Your task to perform on an android device: Go to calendar. Show me events next week Image 0: 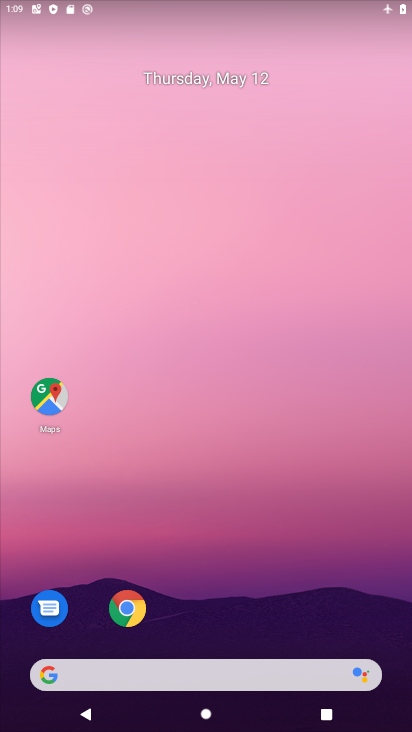
Step 0: drag from (278, 568) to (267, 15)
Your task to perform on an android device: Go to calendar. Show me events next week Image 1: 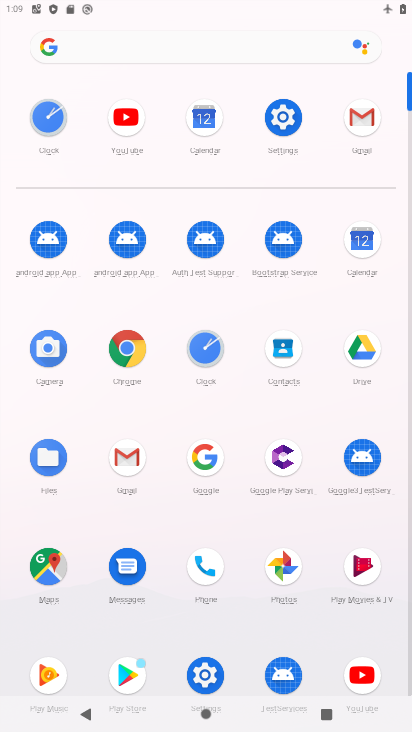
Step 1: click (208, 122)
Your task to perform on an android device: Go to calendar. Show me events next week Image 2: 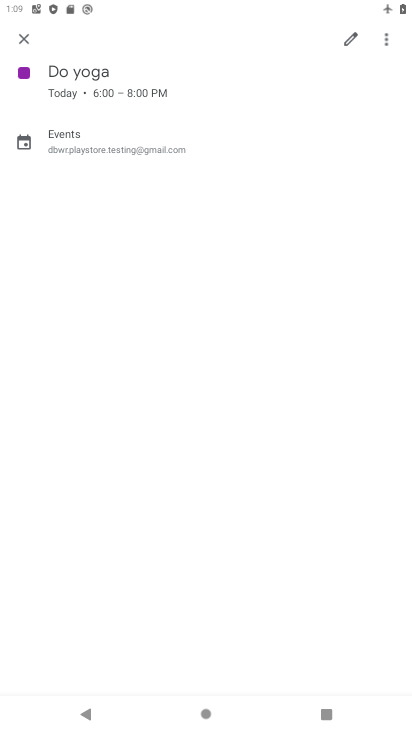
Step 2: click (26, 34)
Your task to perform on an android device: Go to calendar. Show me events next week Image 3: 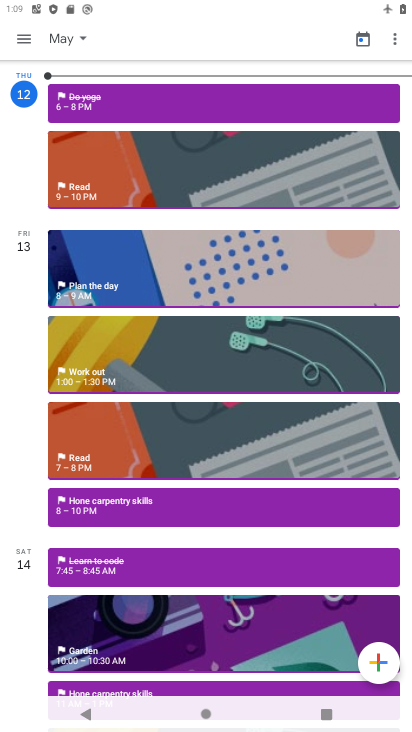
Step 3: click (27, 41)
Your task to perform on an android device: Go to calendar. Show me events next week Image 4: 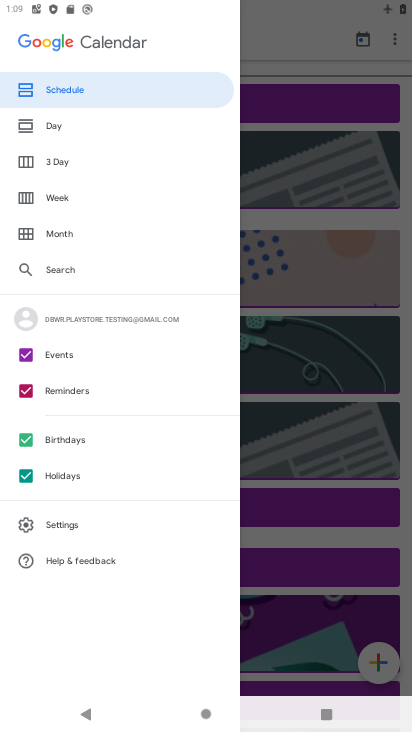
Step 4: click (33, 474)
Your task to perform on an android device: Go to calendar. Show me events next week Image 5: 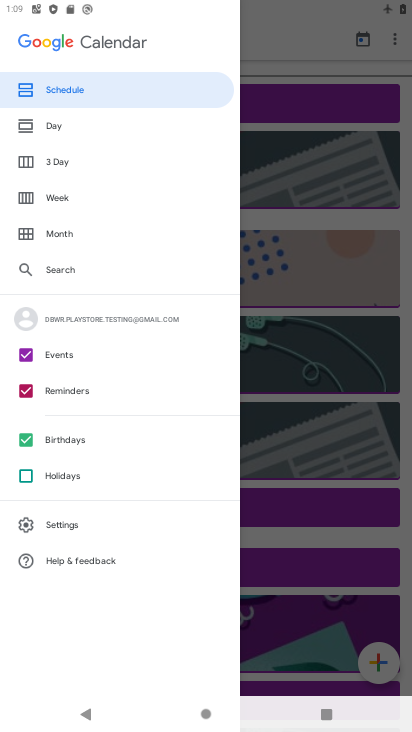
Step 5: click (31, 440)
Your task to perform on an android device: Go to calendar. Show me events next week Image 6: 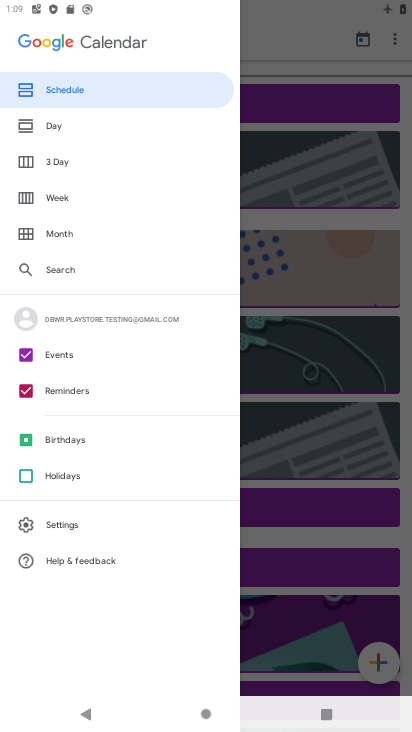
Step 6: click (24, 392)
Your task to perform on an android device: Go to calendar. Show me events next week Image 7: 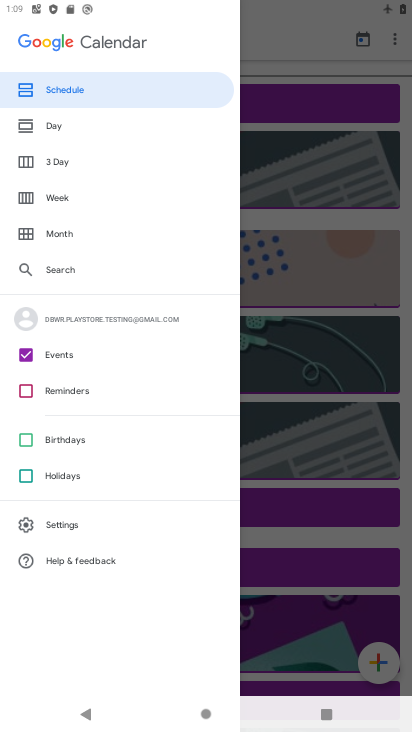
Step 7: click (29, 198)
Your task to perform on an android device: Go to calendar. Show me events next week Image 8: 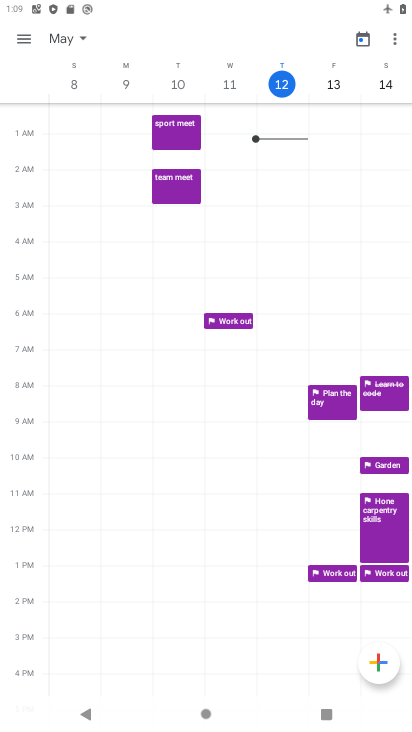
Step 8: task complete